Your task to perform on an android device: Open accessibility settings Image 0: 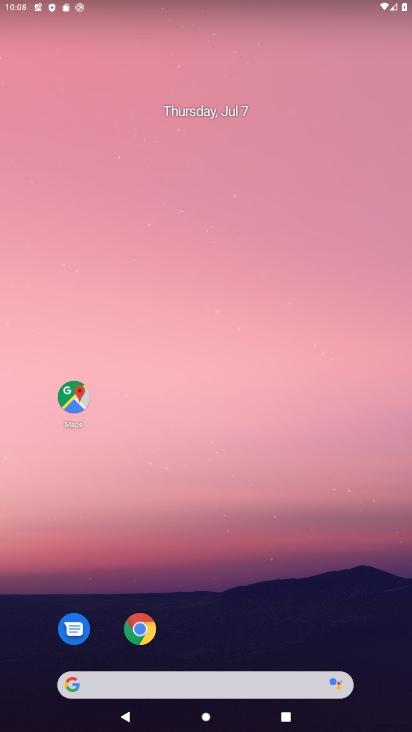
Step 0: drag from (239, 640) to (233, 101)
Your task to perform on an android device: Open accessibility settings Image 1: 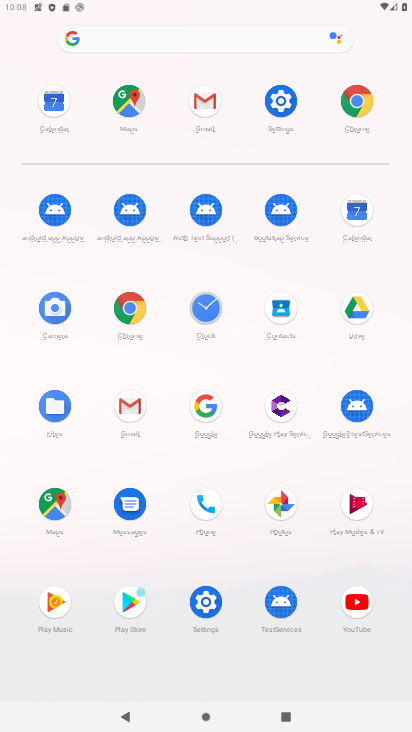
Step 1: click (291, 95)
Your task to perform on an android device: Open accessibility settings Image 2: 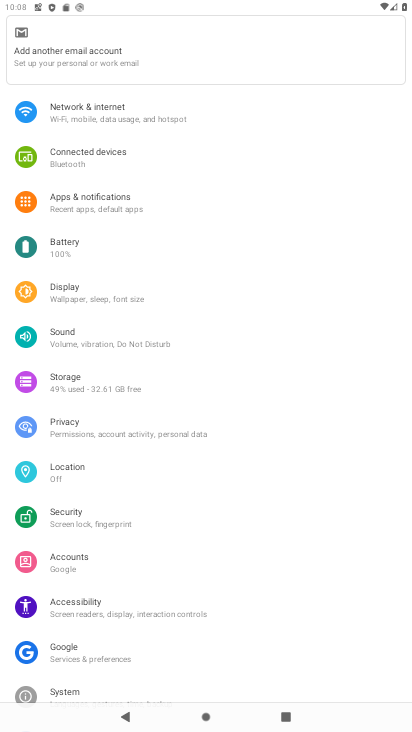
Step 2: click (72, 614)
Your task to perform on an android device: Open accessibility settings Image 3: 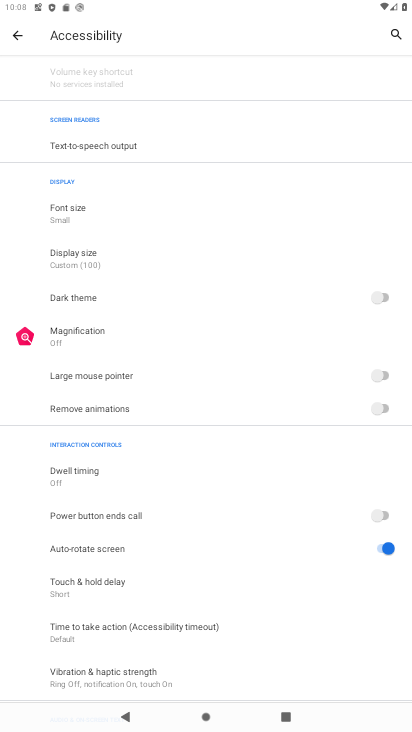
Step 3: task complete